Your task to perform on an android device: find which apps use the phone's location Image 0: 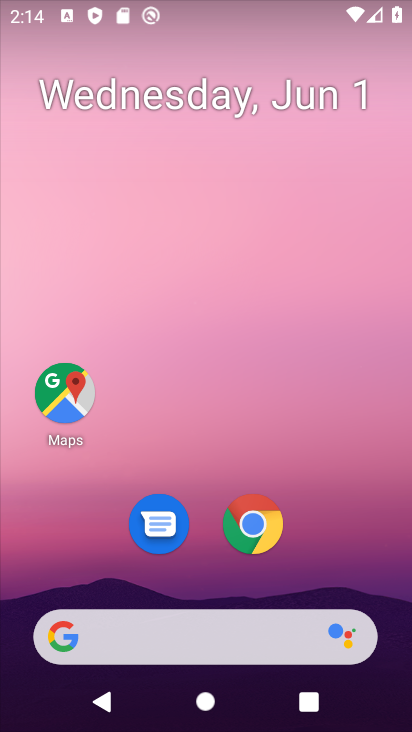
Step 0: drag from (226, 445) to (230, 38)
Your task to perform on an android device: find which apps use the phone's location Image 1: 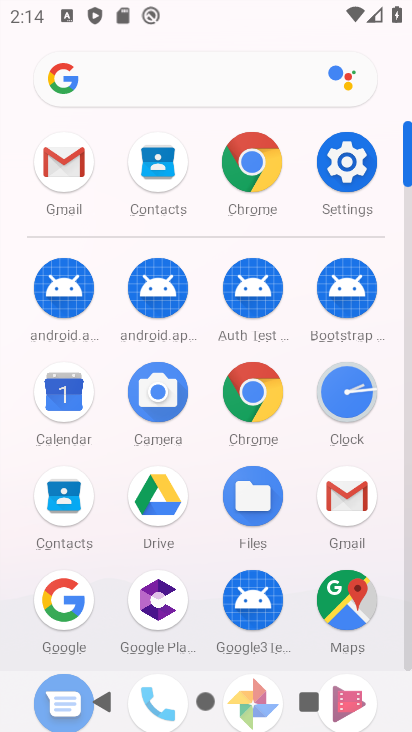
Step 1: click (351, 165)
Your task to perform on an android device: find which apps use the phone's location Image 2: 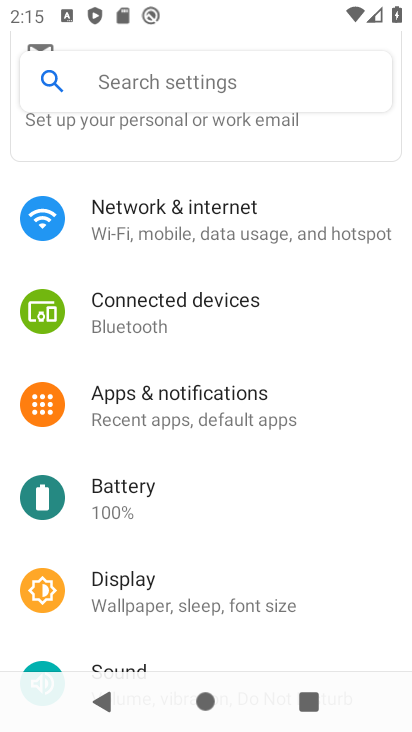
Step 2: drag from (243, 513) to (236, 54)
Your task to perform on an android device: find which apps use the phone's location Image 3: 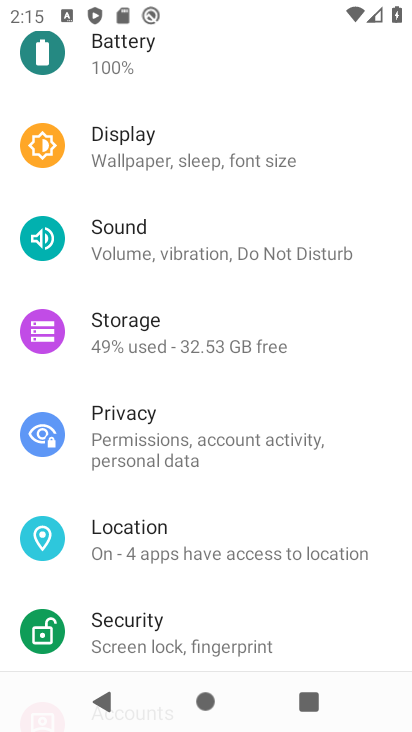
Step 3: click (220, 546)
Your task to perform on an android device: find which apps use the phone's location Image 4: 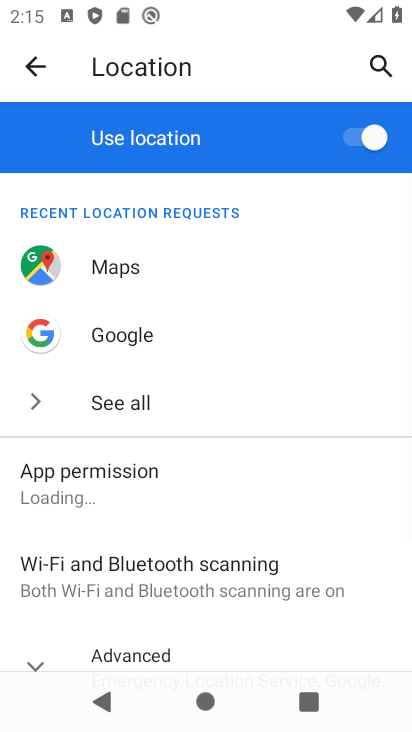
Step 4: click (200, 475)
Your task to perform on an android device: find which apps use the phone's location Image 5: 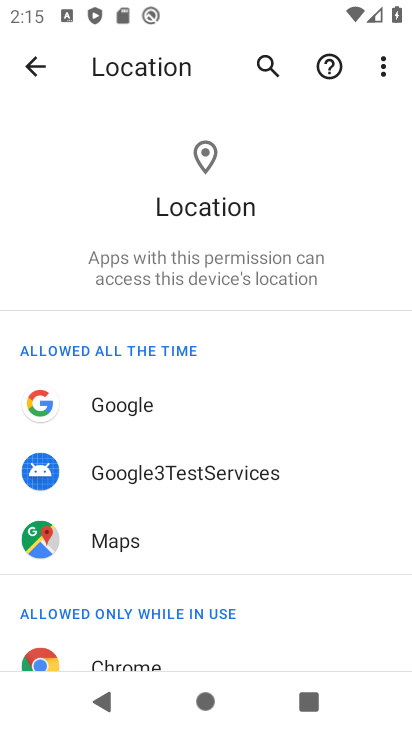
Step 5: task complete